Your task to perform on an android device: Go to sound settings Image 0: 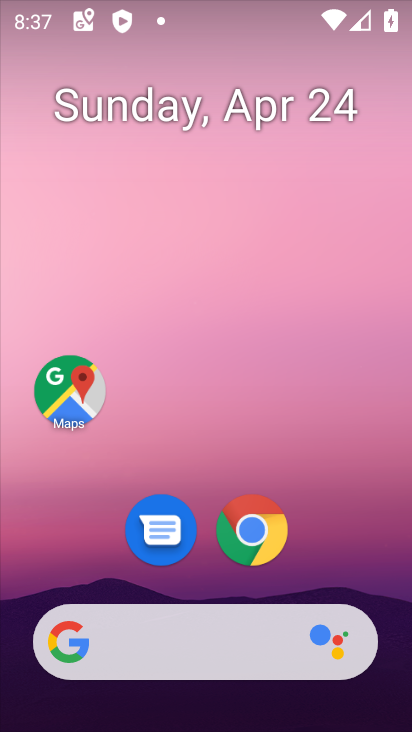
Step 0: drag from (223, 572) to (252, 174)
Your task to perform on an android device: Go to sound settings Image 1: 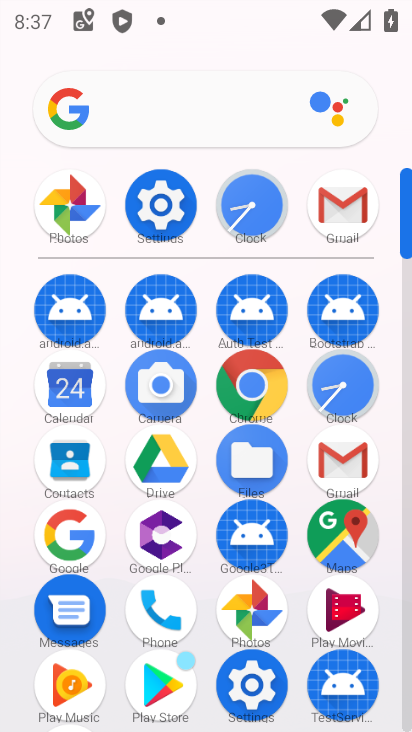
Step 1: click (158, 207)
Your task to perform on an android device: Go to sound settings Image 2: 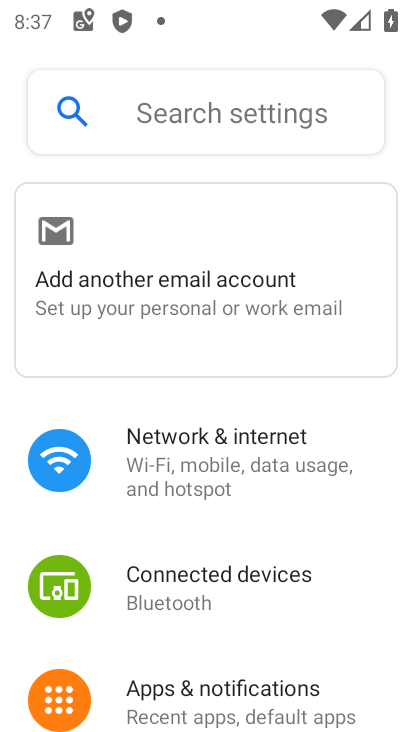
Step 2: drag from (88, 650) to (257, 132)
Your task to perform on an android device: Go to sound settings Image 3: 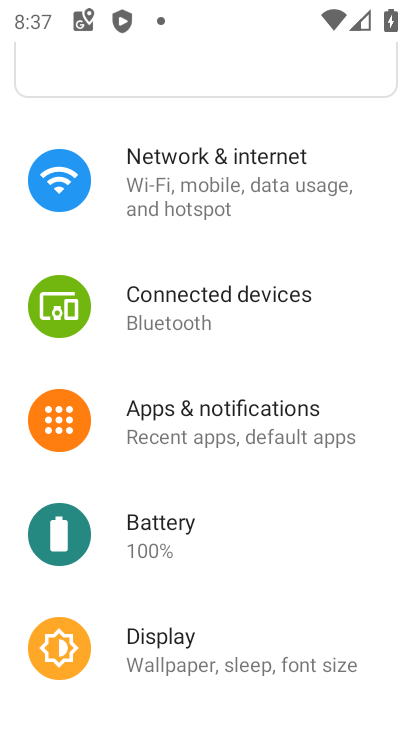
Step 3: drag from (103, 592) to (211, 119)
Your task to perform on an android device: Go to sound settings Image 4: 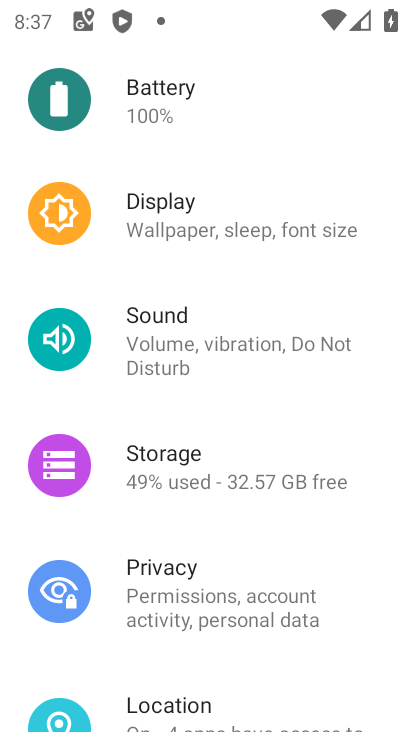
Step 4: click (204, 351)
Your task to perform on an android device: Go to sound settings Image 5: 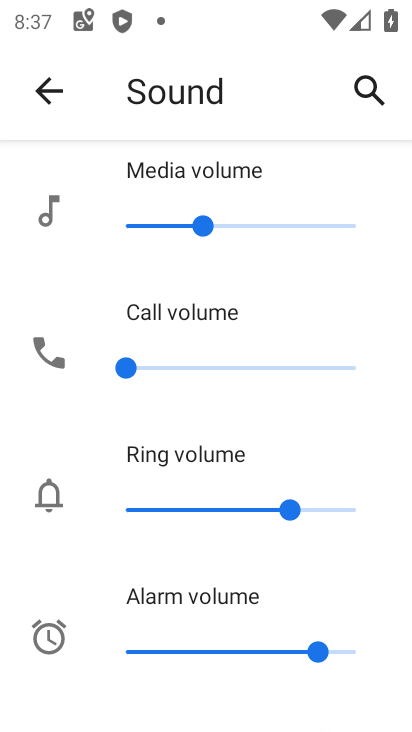
Step 5: task complete